Your task to perform on an android device: find which apps use the phone's location Image 0: 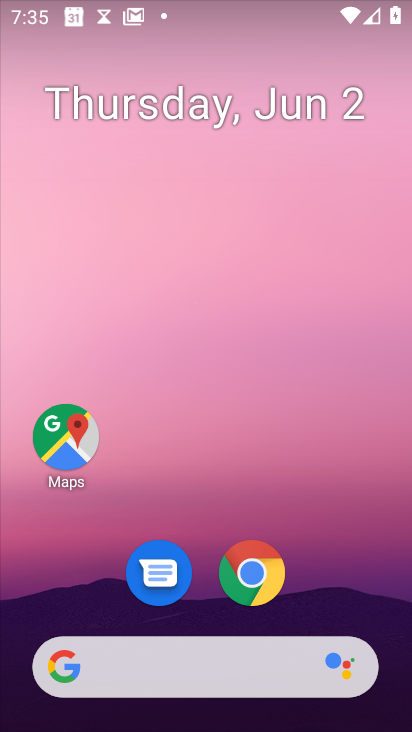
Step 0: drag from (223, 603) to (350, 62)
Your task to perform on an android device: find which apps use the phone's location Image 1: 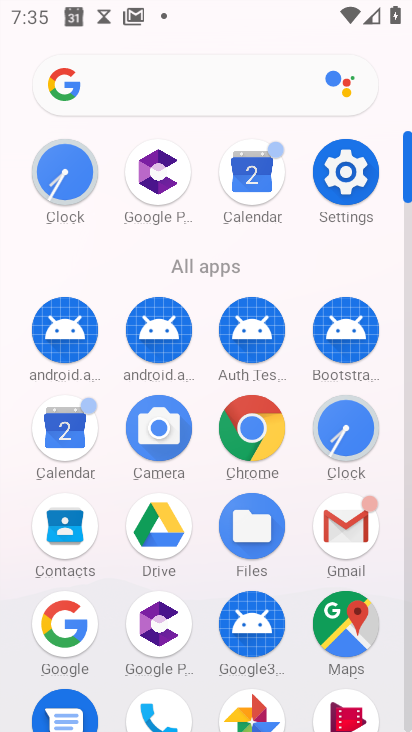
Step 1: click (344, 180)
Your task to perform on an android device: find which apps use the phone's location Image 2: 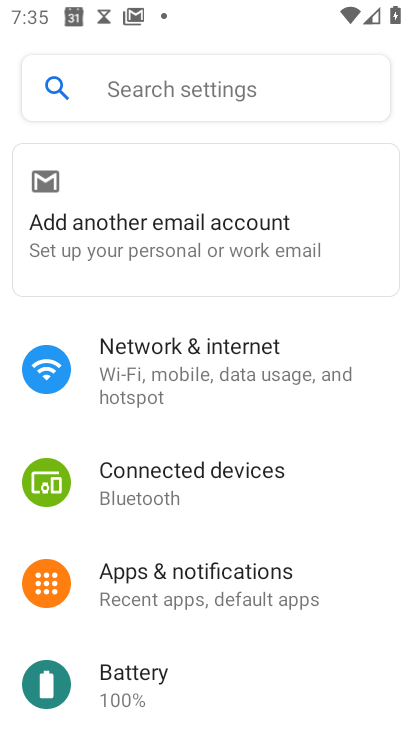
Step 2: drag from (192, 642) to (407, 14)
Your task to perform on an android device: find which apps use the phone's location Image 3: 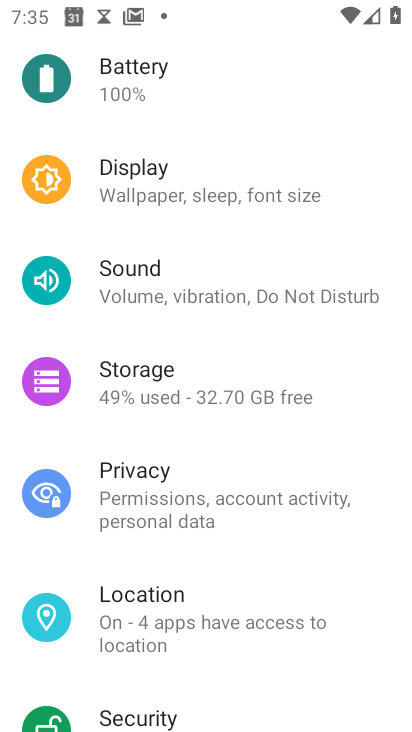
Step 3: click (183, 604)
Your task to perform on an android device: find which apps use the phone's location Image 4: 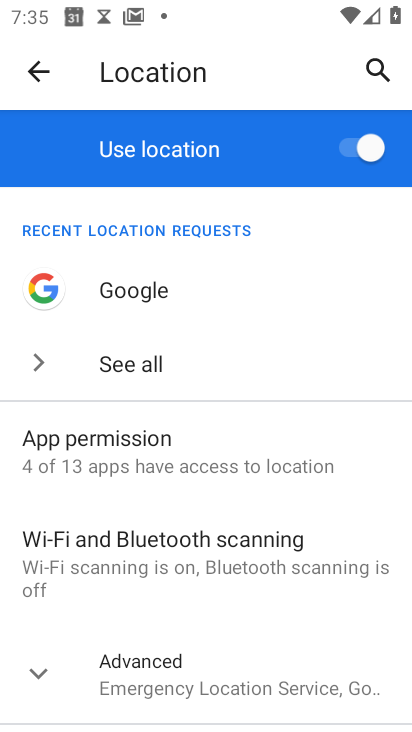
Step 4: click (119, 445)
Your task to perform on an android device: find which apps use the phone's location Image 5: 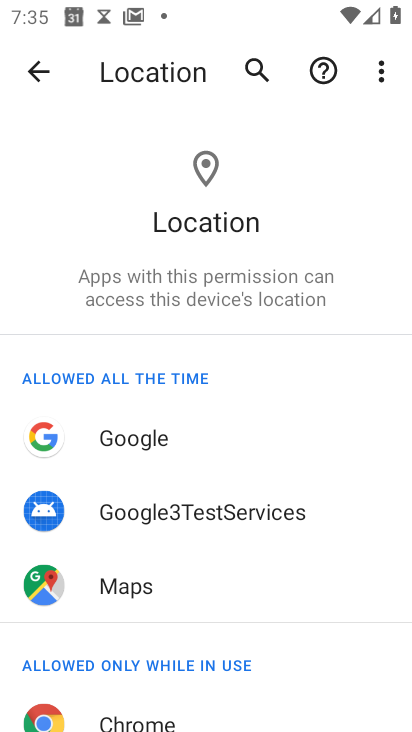
Step 5: drag from (262, 496) to (410, 108)
Your task to perform on an android device: find which apps use the phone's location Image 6: 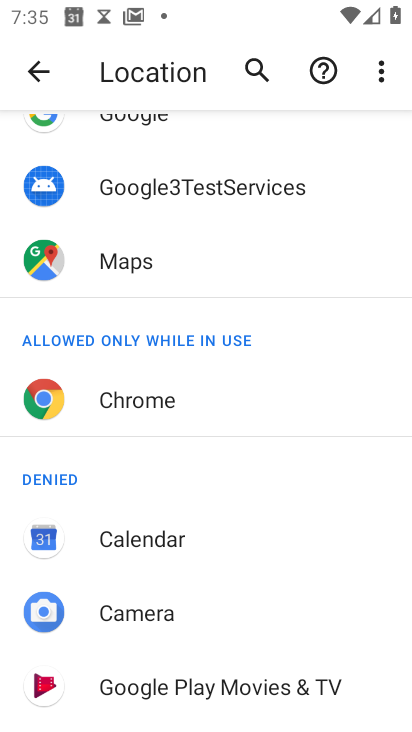
Step 6: drag from (206, 635) to (350, 153)
Your task to perform on an android device: find which apps use the phone's location Image 7: 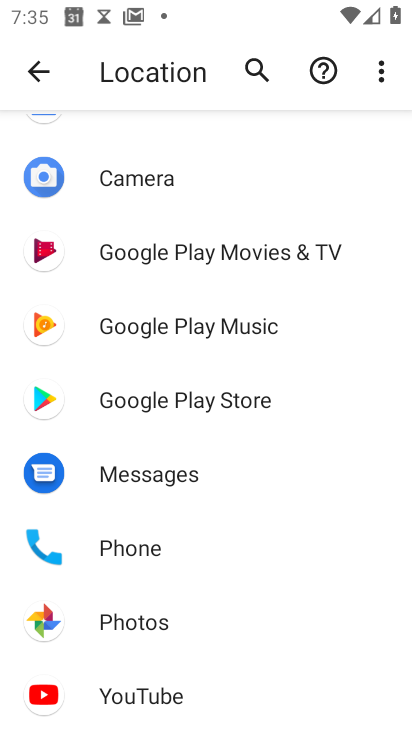
Step 7: click (151, 552)
Your task to perform on an android device: find which apps use the phone's location Image 8: 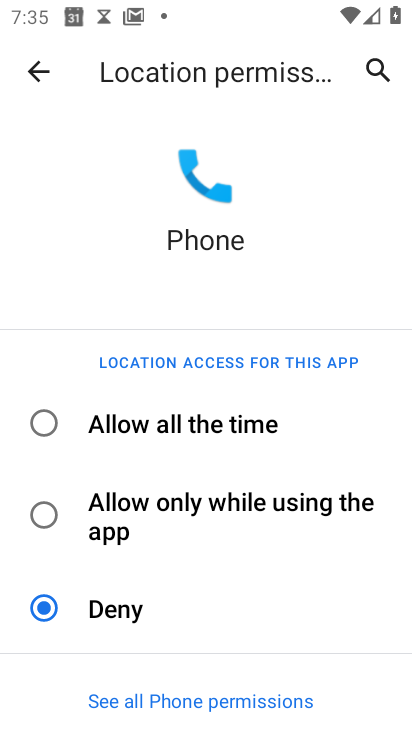
Step 8: task complete